Your task to perform on an android device: empty trash in google photos Image 0: 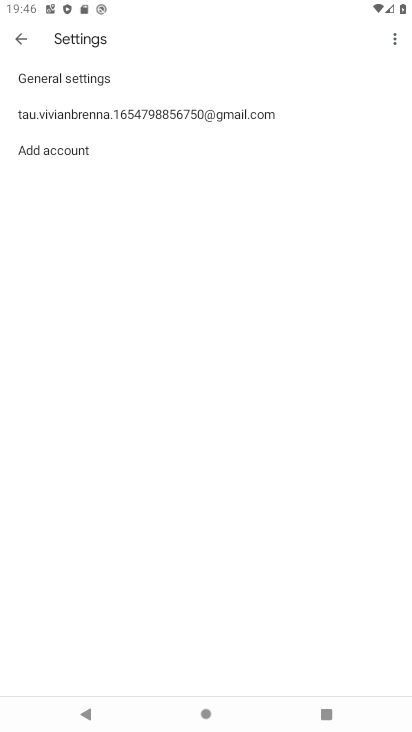
Step 0: press home button
Your task to perform on an android device: empty trash in google photos Image 1: 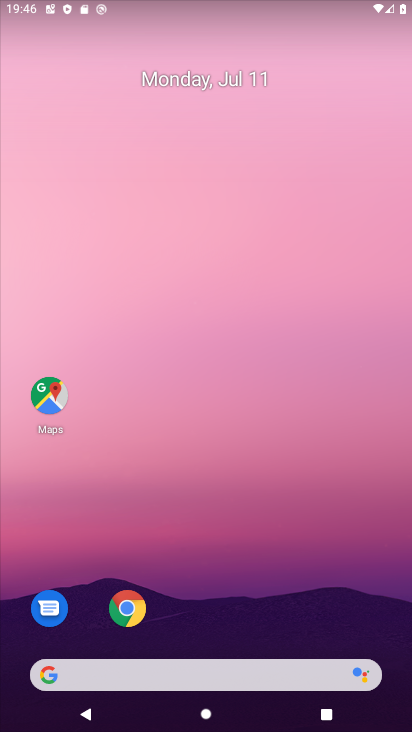
Step 1: drag from (245, 616) to (203, 71)
Your task to perform on an android device: empty trash in google photos Image 2: 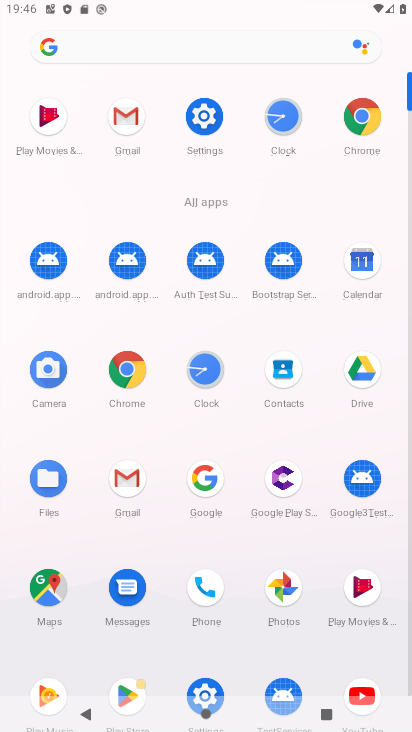
Step 2: click (286, 615)
Your task to perform on an android device: empty trash in google photos Image 3: 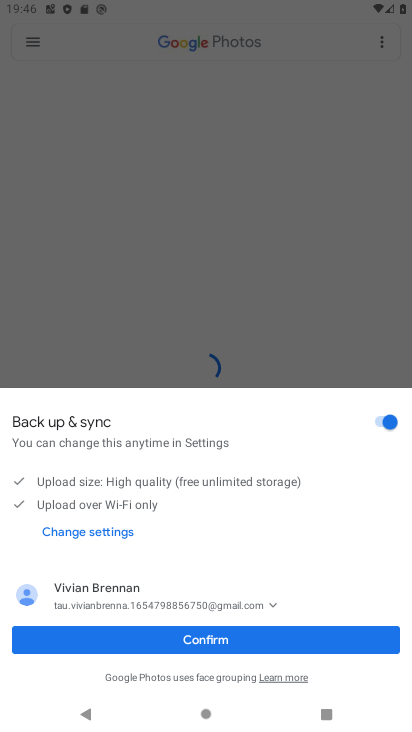
Step 3: click (288, 636)
Your task to perform on an android device: empty trash in google photos Image 4: 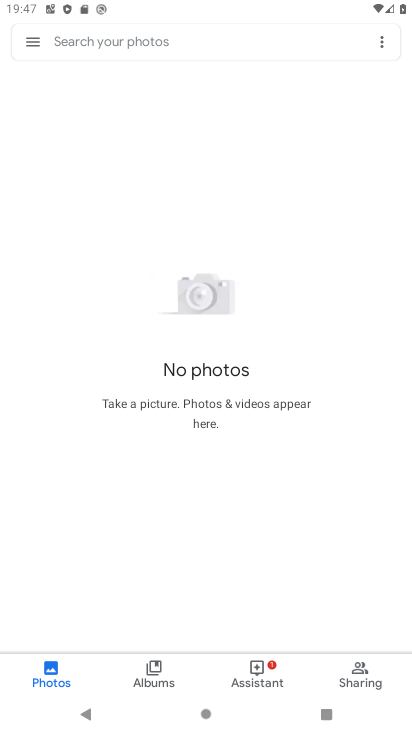
Step 4: click (22, 35)
Your task to perform on an android device: empty trash in google photos Image 5: 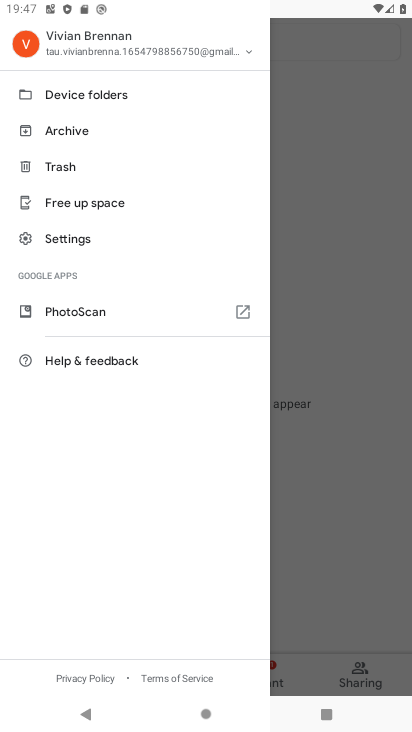
Step 5: click (81, 161)
Your task to perform on an android device: empty trash in google photos Image 6: 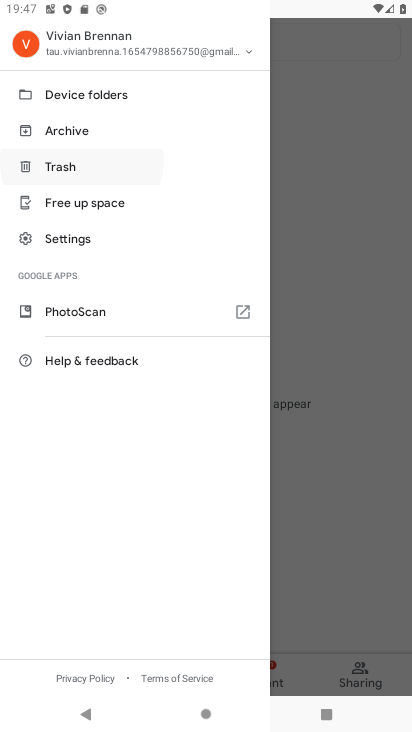
Step 6: click (81, 161)
Your task to perform on an android device: empty trash in google photos Image 7: 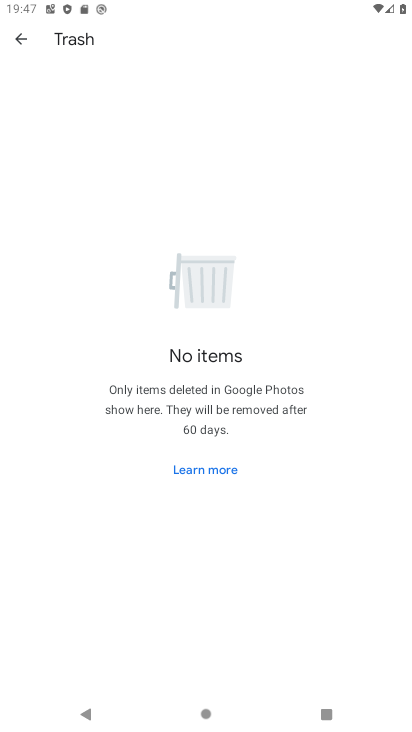
Step 7: task complete